Your task to perform on an android device: find photos in the google photos app Image 0: 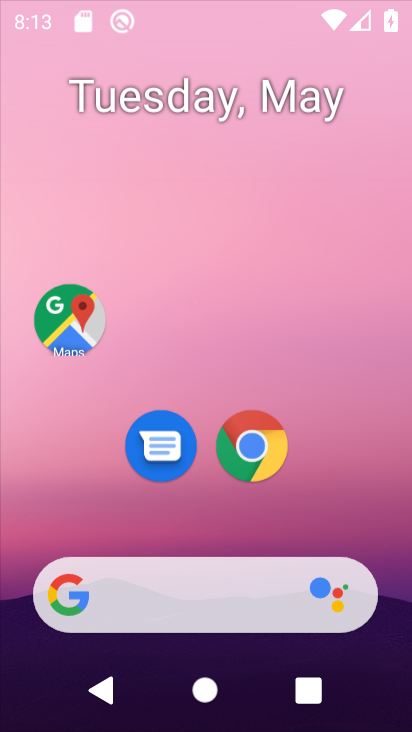
Step 0: drag from (244, 459) to (238, 98)
Your task to perform on an android device: find photos in the google photos app Image 1: 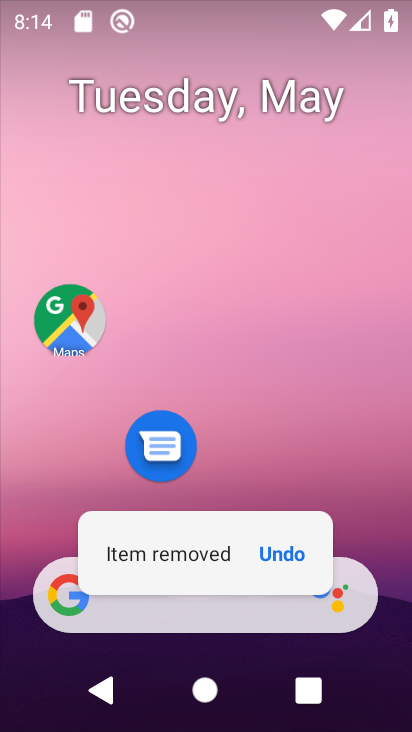
Step 1: drag from (235, 498) to (388, 363)
Your task to perform on an android device: find photos in the google photos app Image 2: 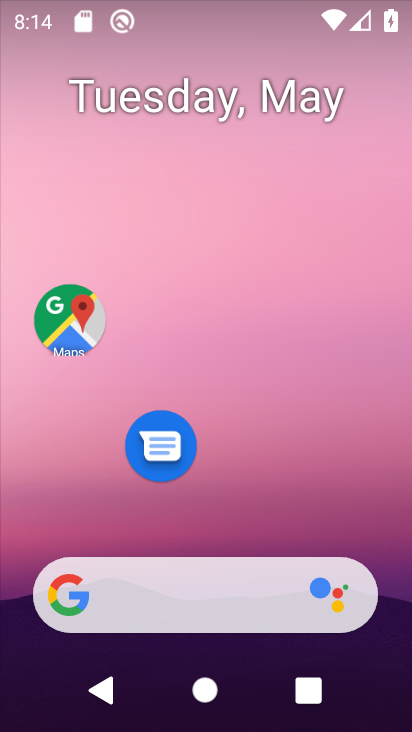
Step 2: drag from (207, 525) to (238, 3)
Your task to perform on an android device: find photos in the google photos app Image 3: 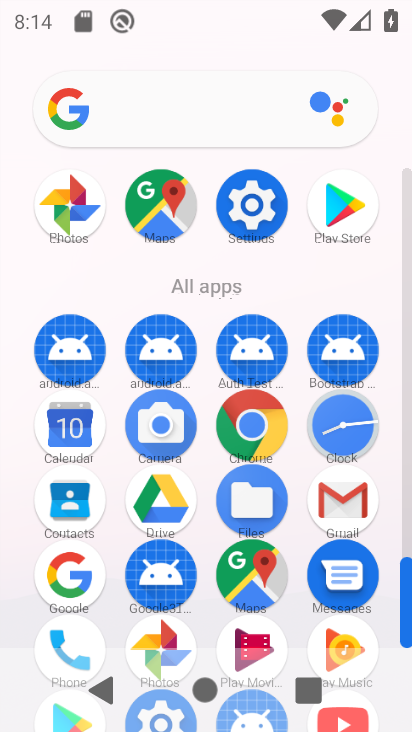
Step 3: click (160, 634)
Your task to perform on an android device: find photos in the google photos app Image 4: 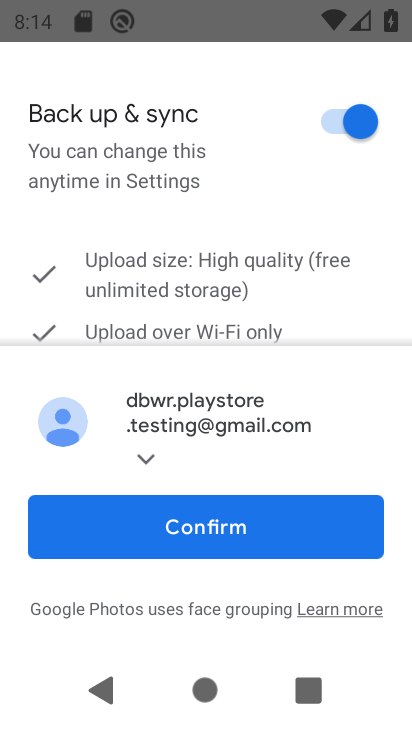
Step 4: click (263, 548)
Your task to perform on an android device: find photos in the google photos app Image 5: 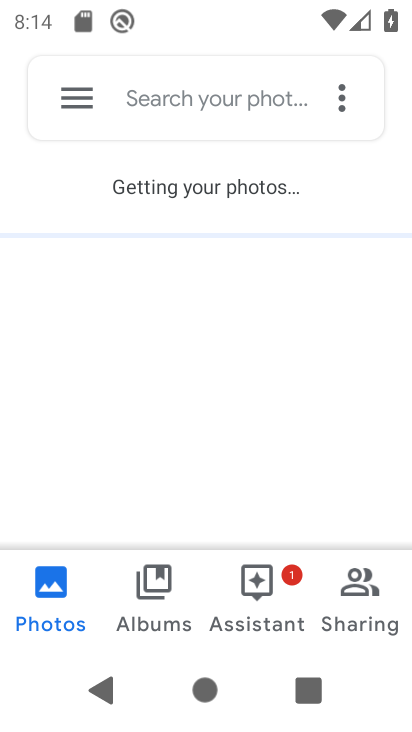
Step 5: click (164, 570)
Your task to perform on an android device: find photos in the google photos app Image 6: 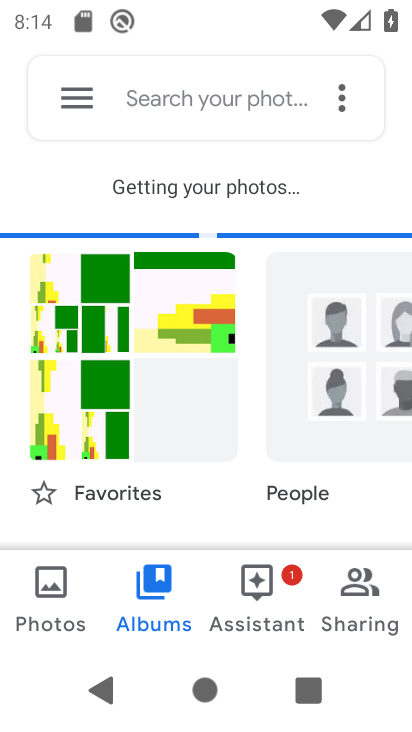
Step 6: click (75, 583)
Your task to perform on an android device: find photos in the google photos app Image 7: 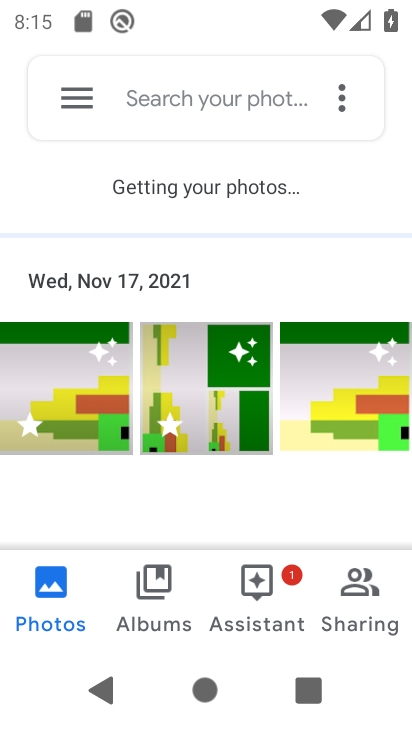
Step 7: task complete